Your task to perform on an android device: check battery use Image 0: 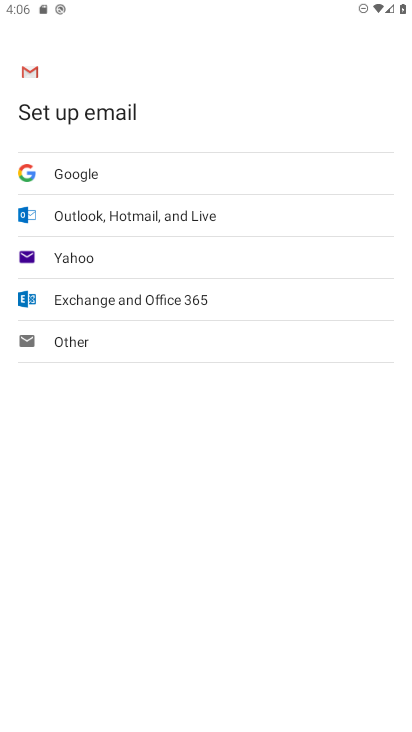
Step 0: press home button
Your task to perform on an android device: check battery use Image 1: 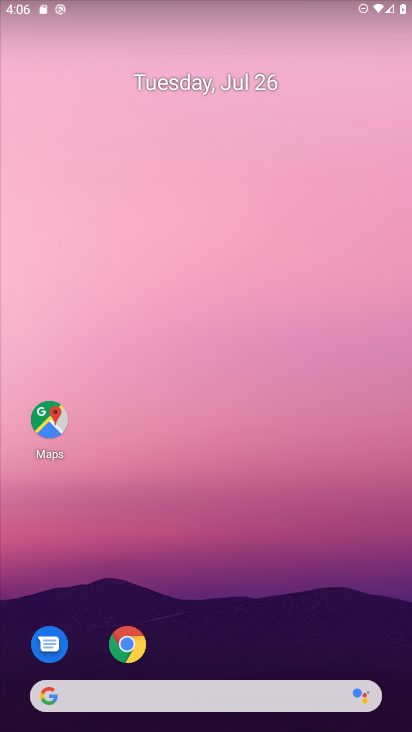
Step 1: click (347, 0)
Your task to perform on an android device: check battery use Image 2: 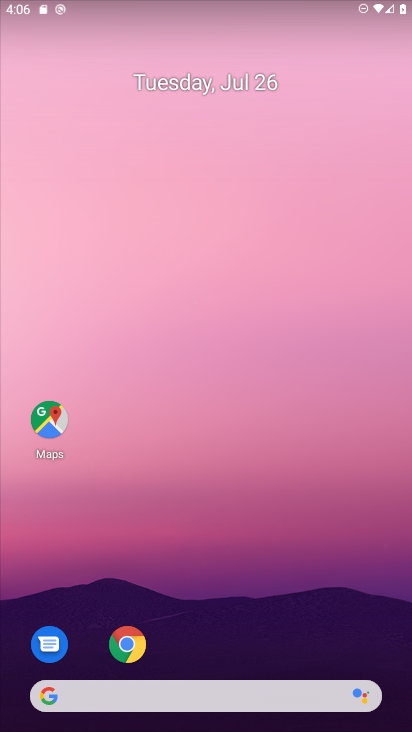
Step 2: drag from (383, 639) to (354, 149)
Your task to perform on an android device: check battery use Image 3: 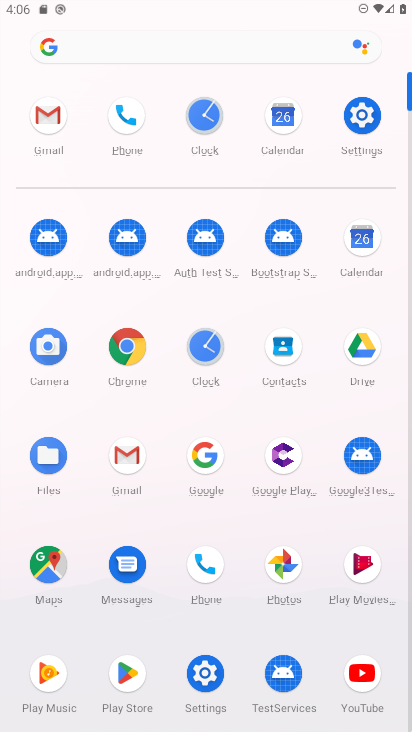
Step 3: click (204, 673)
Your task to perform on an android device: check battery use Image 4: 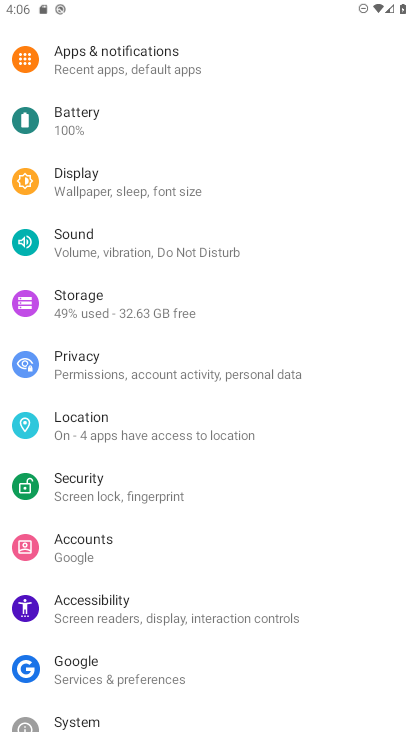
Step 4: click (72, 110)
Your task to perform on an android device: check battery use Image 5: 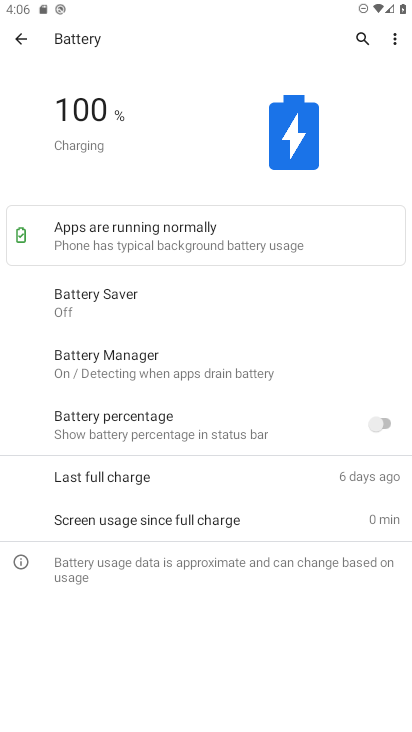
Step 5: click (390, 42)
Your task to perform on an android device: check battery use Image 6: 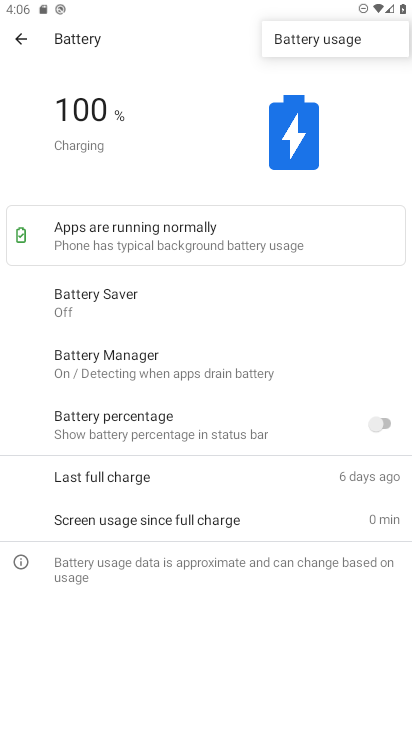
Step 6: click (298, 36)
Your task to perform on an android device: check battery use Image 7: 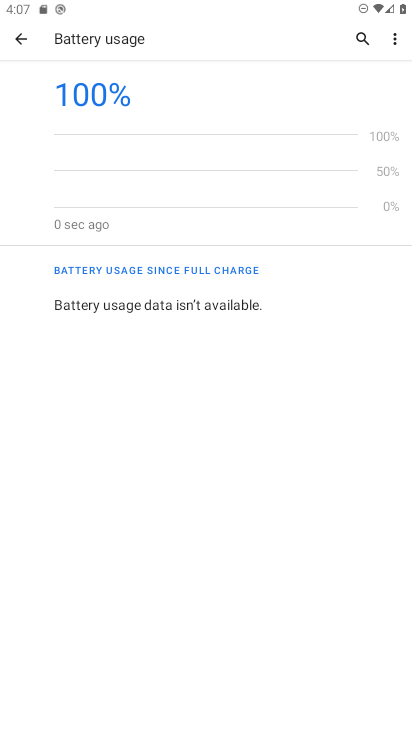
Step 7: task complete